Your task to perform on an android device: open app "Cash App" (install if not already installed) Image 0: 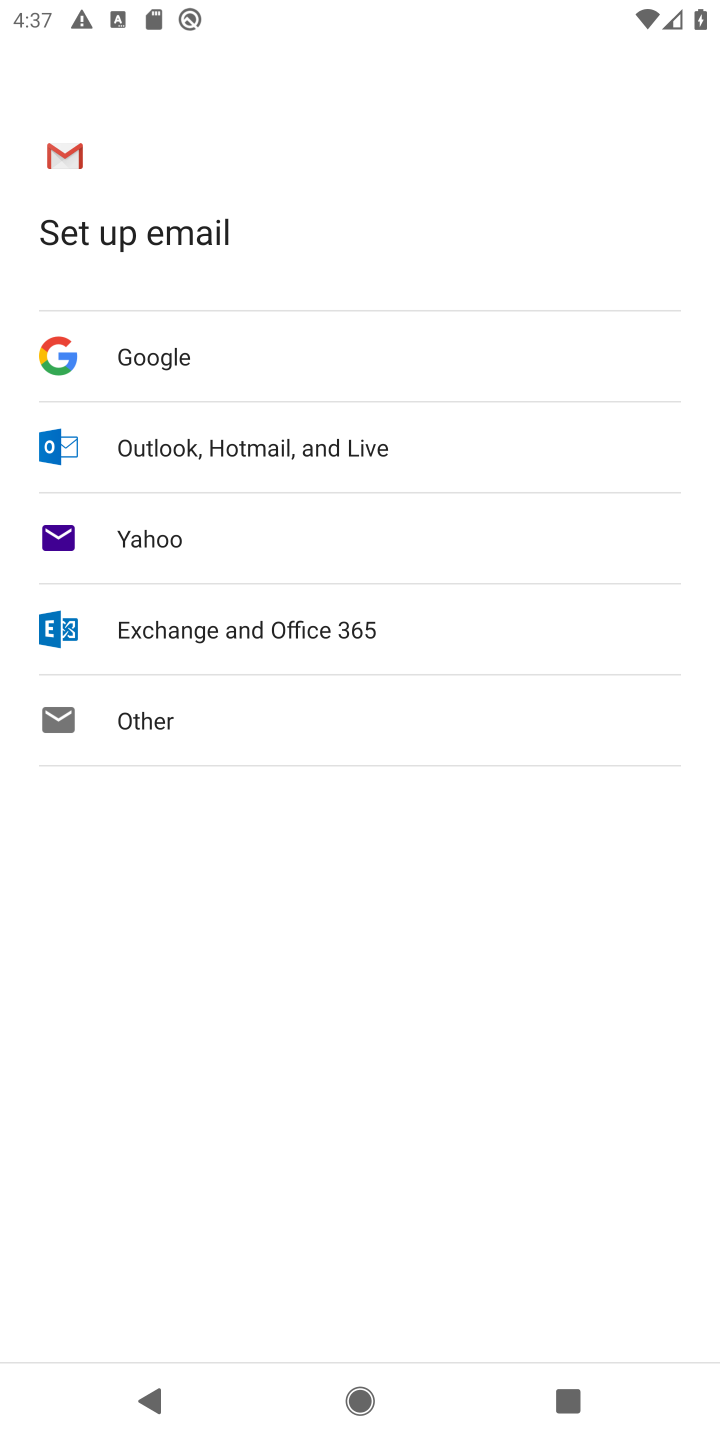
Step 0: press home button
Your task to perform on an android device: open app "Cash App" (install if not already installed) Image 1: 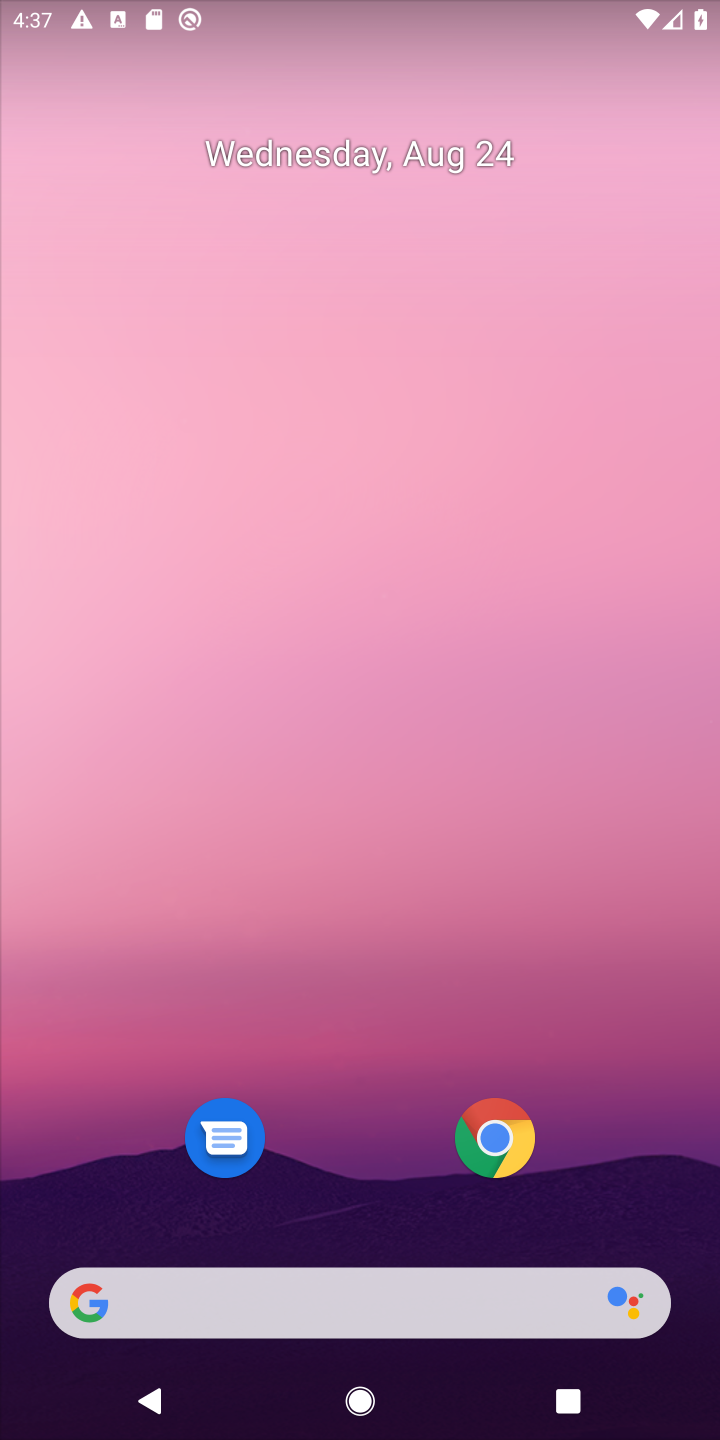
Step 1: drag from (377, 1207) to (374, 408)
Your task to perform on an android device: open app "Cash App" (install if not already installed) Image 2: 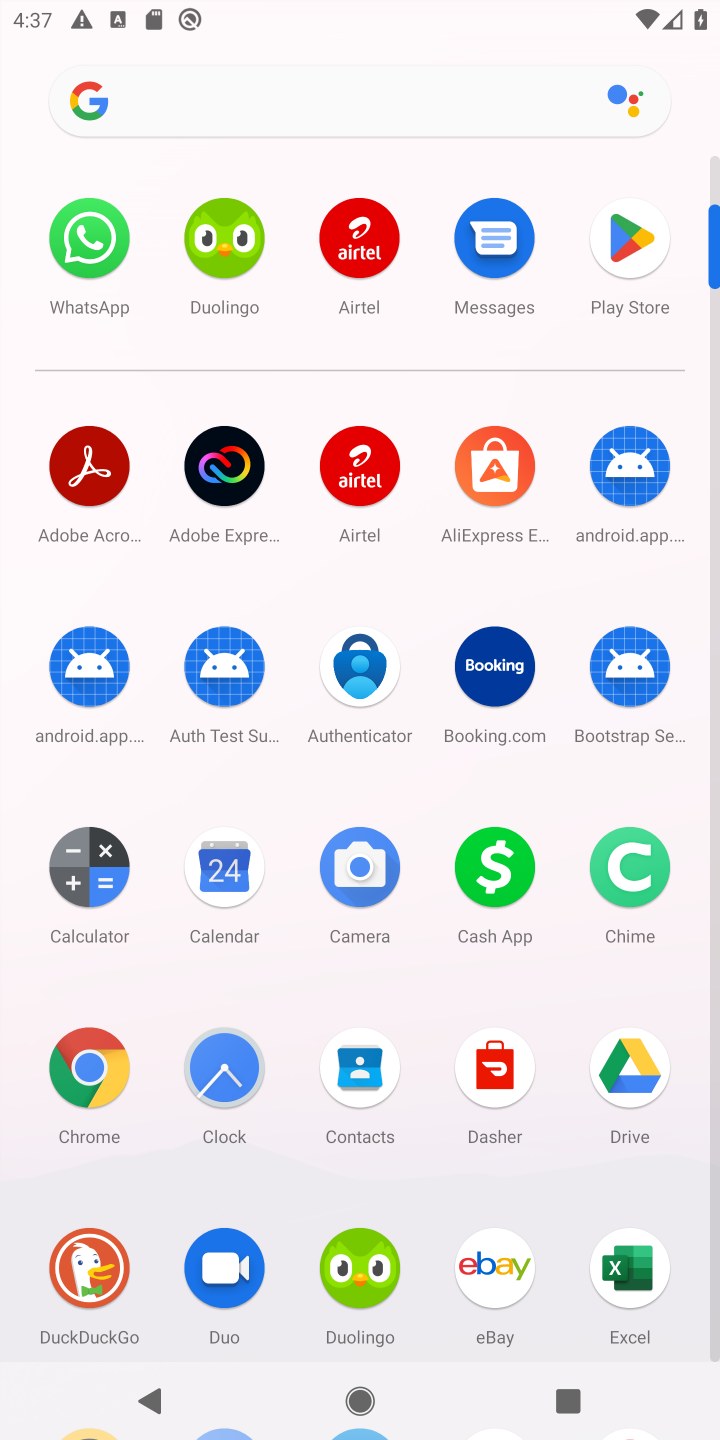
Step 2: click (512, 868)
Your task to perform on an android device: open app "Cash App" (install if not already installed) Image 3: 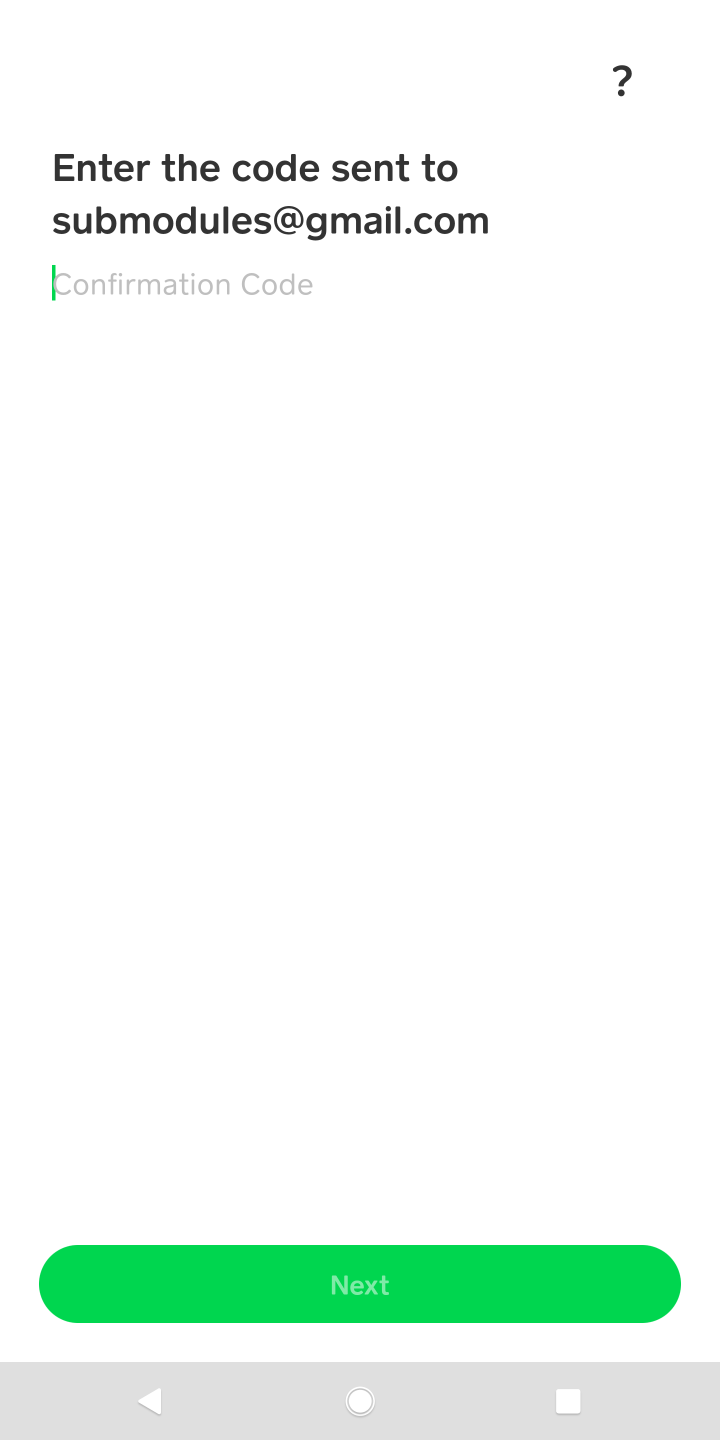
Step 3: task complete